Your task to perform on an android device: Check the news Image 0: 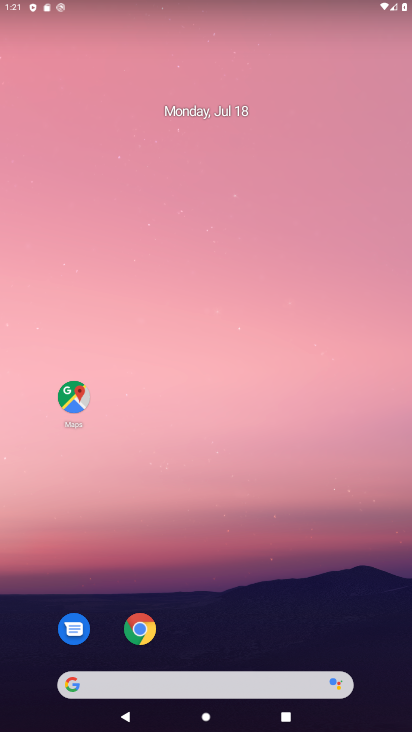
Step 0: drag from (11, 487) to (379, 302)
Your task to perform on an android device: Check the news Image 1: 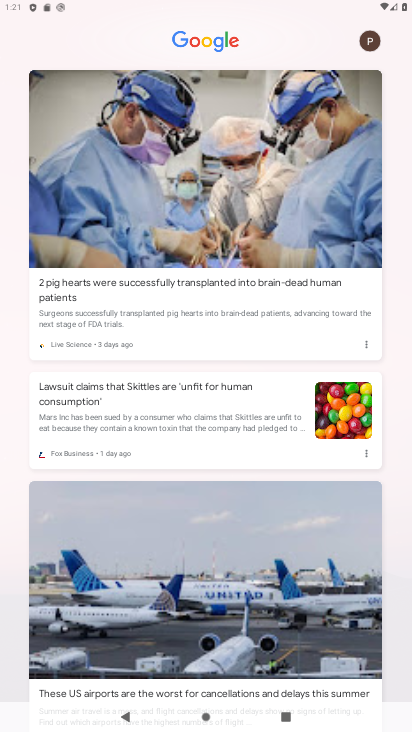
Step 1: task complete